Your task to perform on an android device: toggle wifi Image 0: 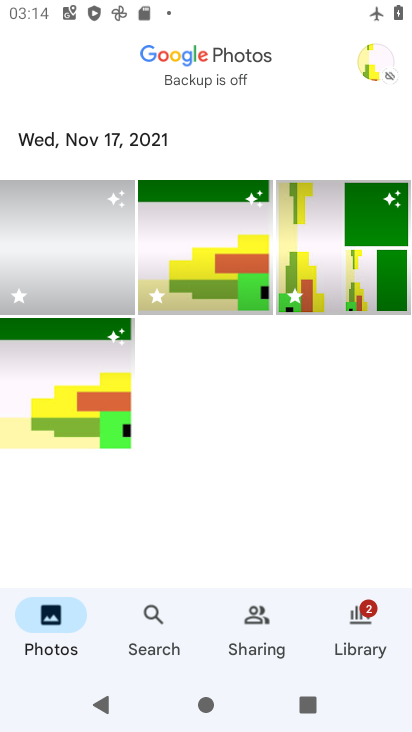
Step 0: press home button
Your task to perform on an android device: toggle wifi Image 1: 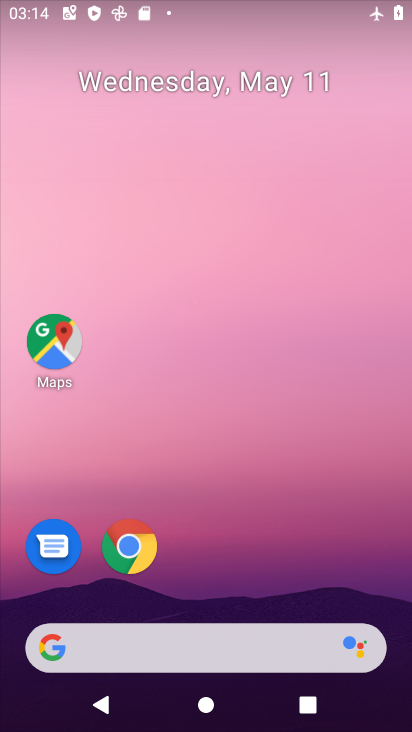
Step 1: drag from (189, 585) to (315, 100)
Your task to perform on an android device: toggle wifi Image 2: 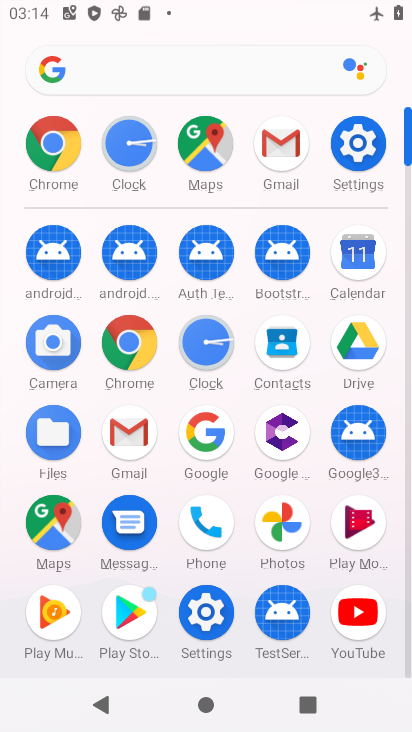
Step 2: click (367, 129)
Your task to perform on an android device: toggle wifi Image 3: 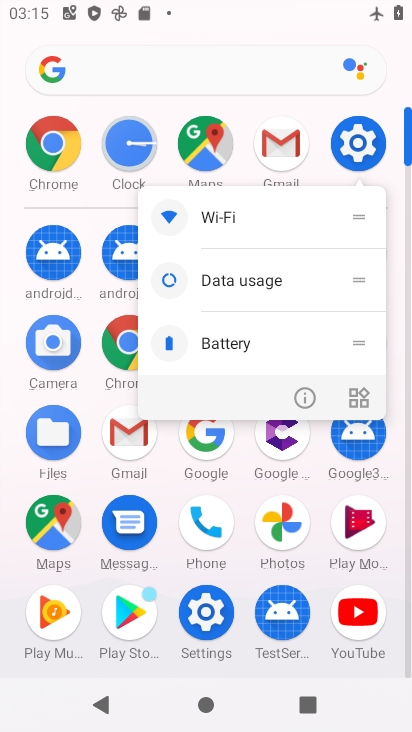
Step 3: click (302, 390)
Your task to perform on an android device: toggle wifi Image 4: 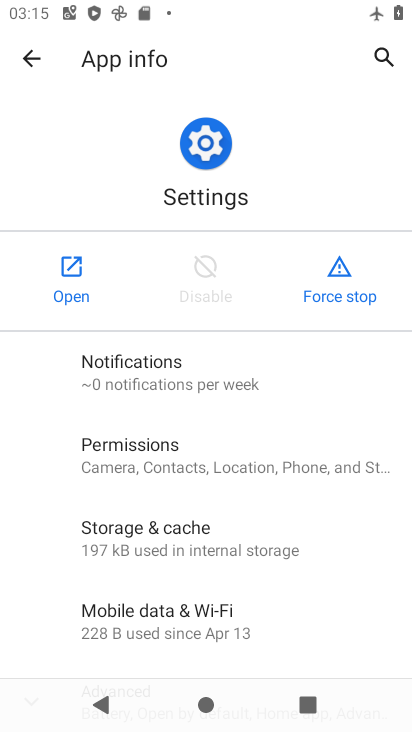
Step 4: click (56, 271)
Your task to perform on an android device: toggle wifi Image 5: 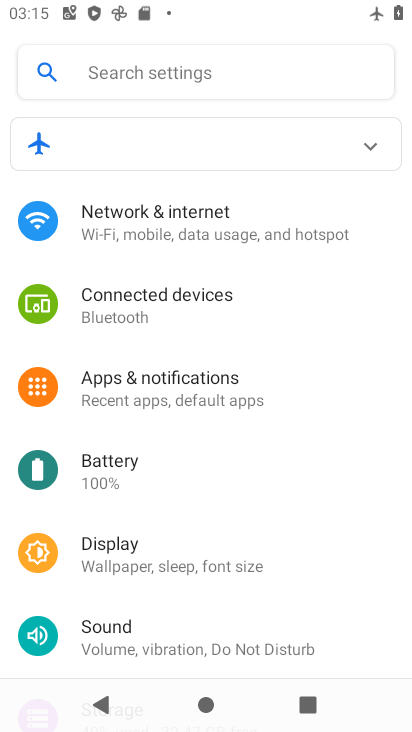
Step 5: drag from (230, 546) to (351, 163)
Your task to perform on an android device: toggle wifi Image 6: 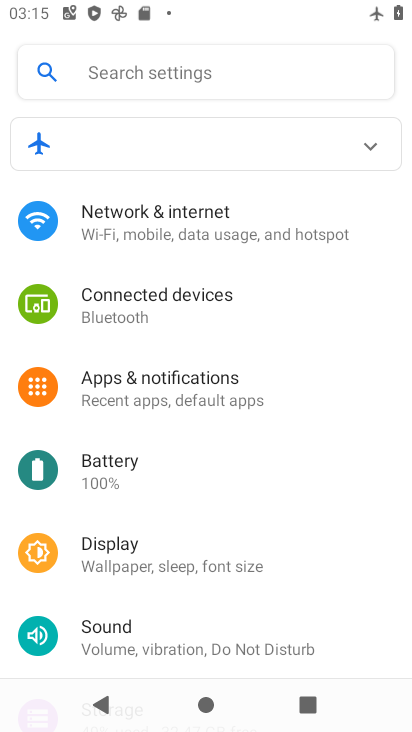
Step 6: click (142, 205)
Your task to perform on an android device: toggle wifi Image 7: 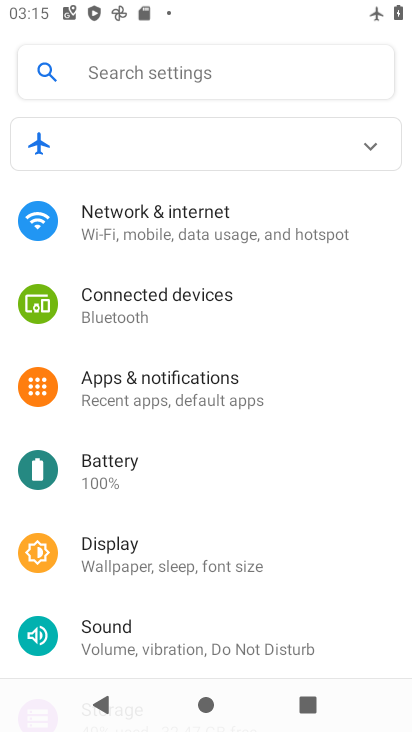
Step 7: click (141, 205)
Your task to perform on an android device: toggle wifi Image 8: 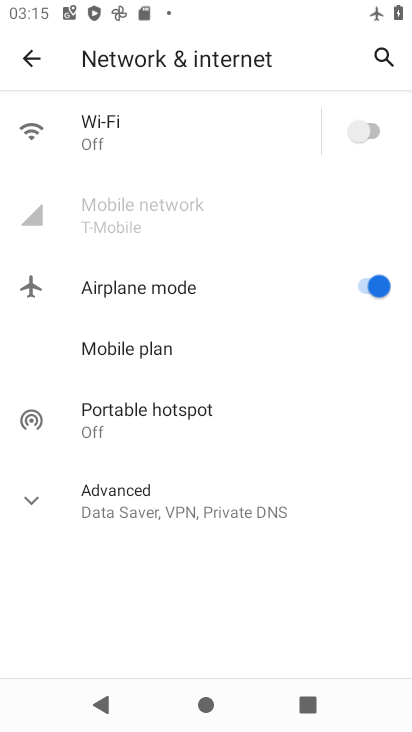
Step 8: click (361, 128)
Your task to perform on an android device: toggle wifi Image 9: 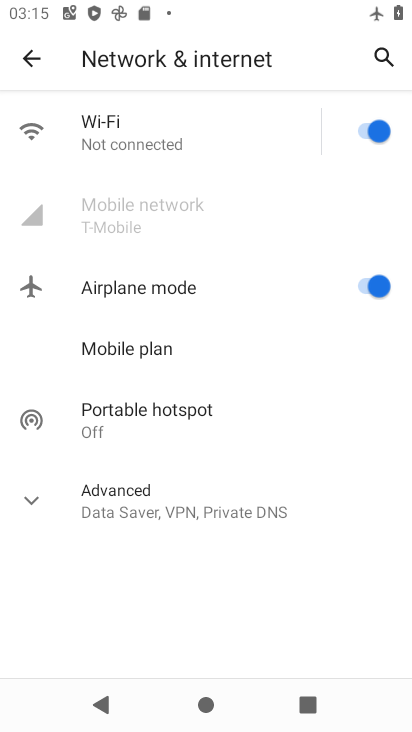
Step 9: task complete